Your task to perform on an android device: empty trash in the gmail app Image 0: 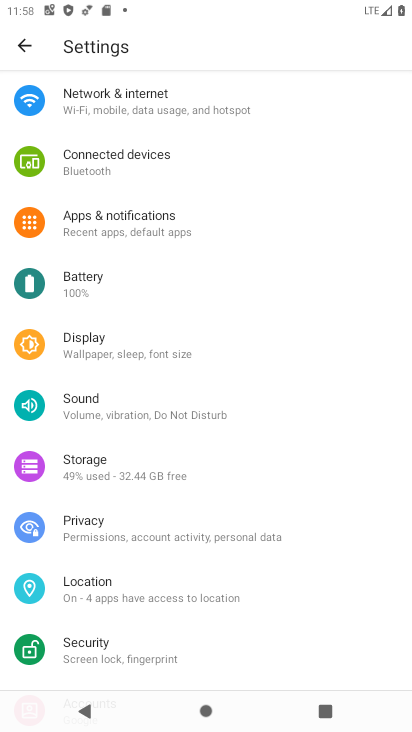
Step 0: press home button
Your task to perform on an android device: empty trash in the gmail app Image 1: 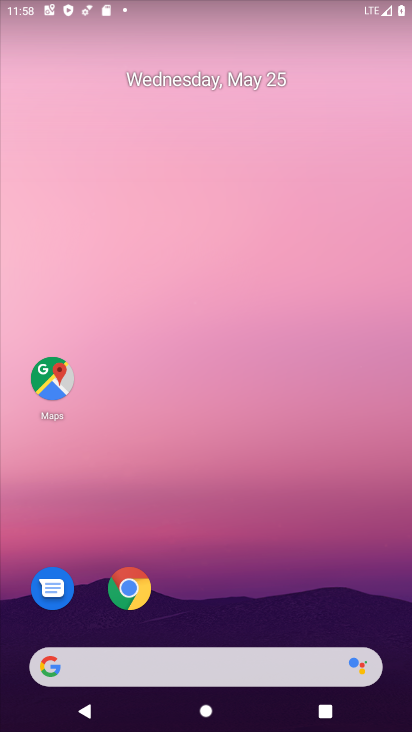
Step 1: drag from (250, 523) to (201, 38)
Your task to perform on an android device: empty trash in the gmail app Image 2: 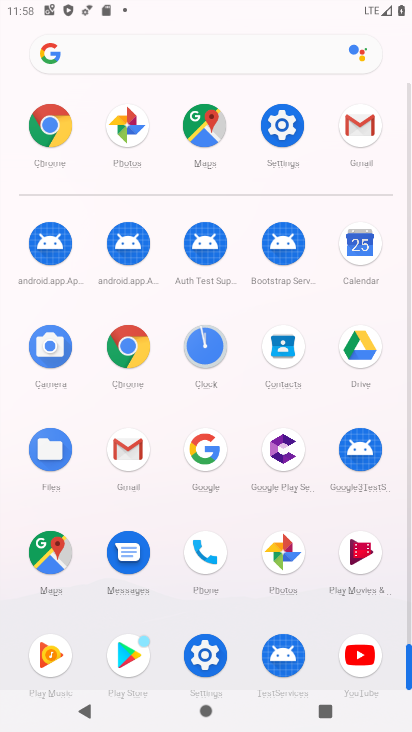
Step 2: click (360, 116)
Your task to perform on an android device: empty trash in the gmail app Image 3: 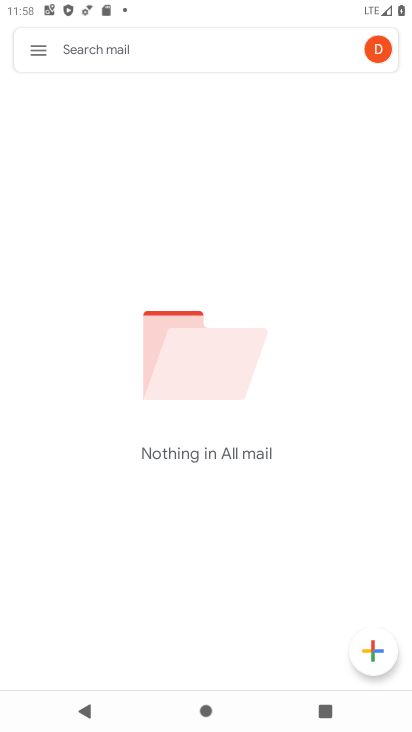
Step 3: click (19, 53)
Your task to perform on an android device: empty trash in the gmail app Image 4: 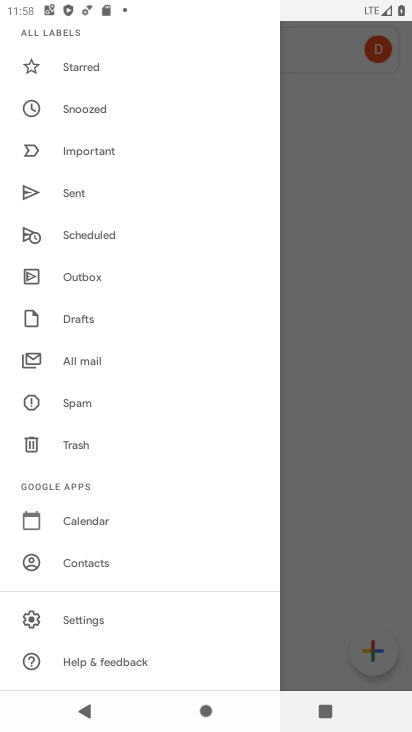
Step 4: click (84, 452)
Your task to perform on an android device: empty trash in the gmail app Image 5: 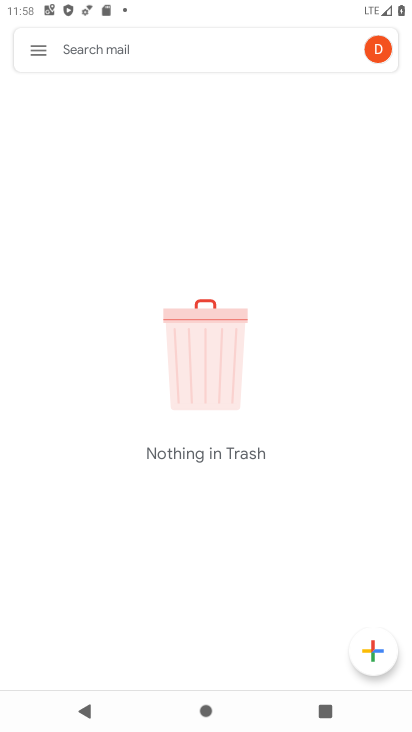
Step 5: task complete